Your task to perform on an android device: turn on showing notifications on the lock screen Image 0: 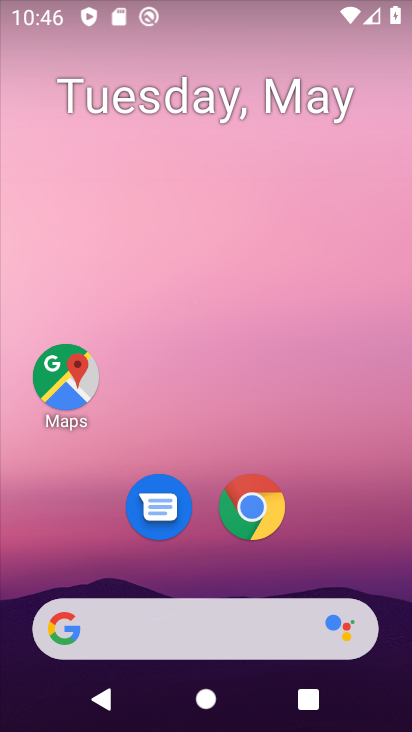
Step 0: drag from (280, 704) to (245, 371)
Your task to perform on an android device: turn on showing notifications on the lock screen Image 1: 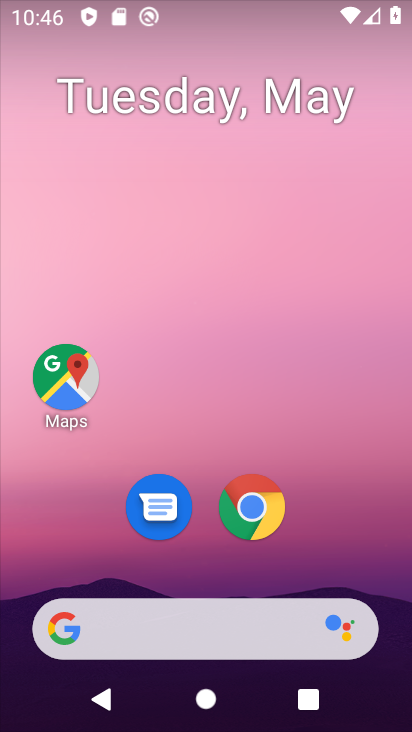
Step 1: drag from (230, 652) to (226, 138)
Your task to perform on an android device: turn on showing notifications on the lock screen Image 2: 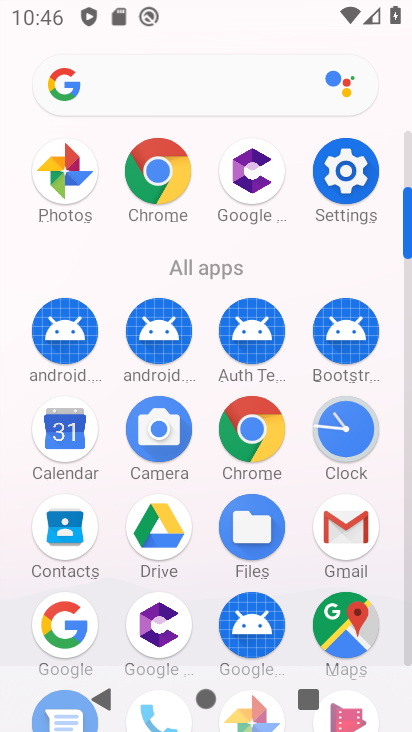
Step 2: click (337, 168)
Your task to perform on an android device: turn on showing notifications on the lock screen Image 3: 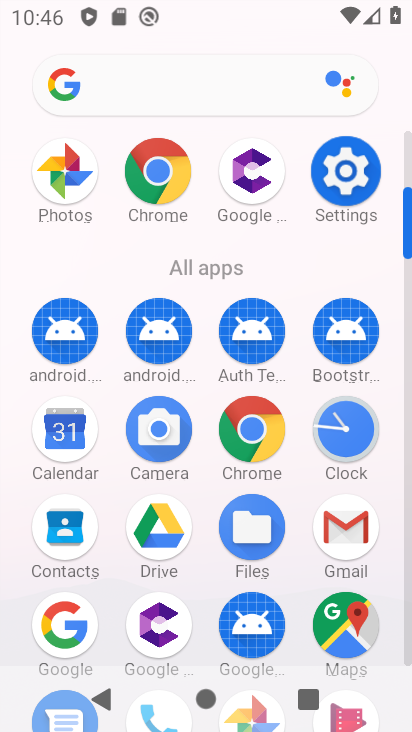
Step 3: click (337, 168)
Your task to perform on an android device: turn on showing notifications on the lock screen Image 4: 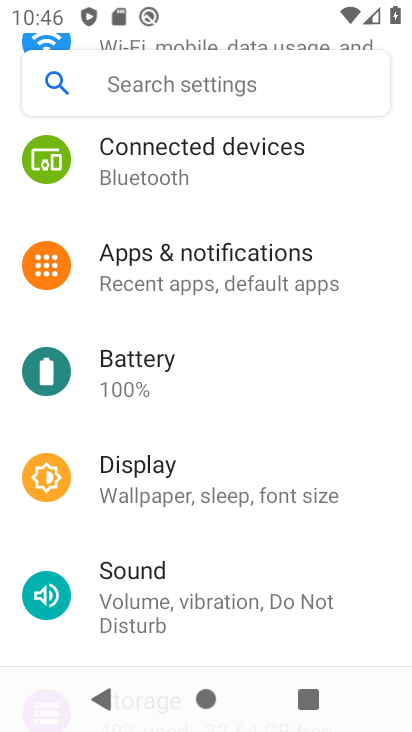
Step 4: click (337, 168)
Your task to perform on an android device: turn on showing notifications on the lock screen Image 5: 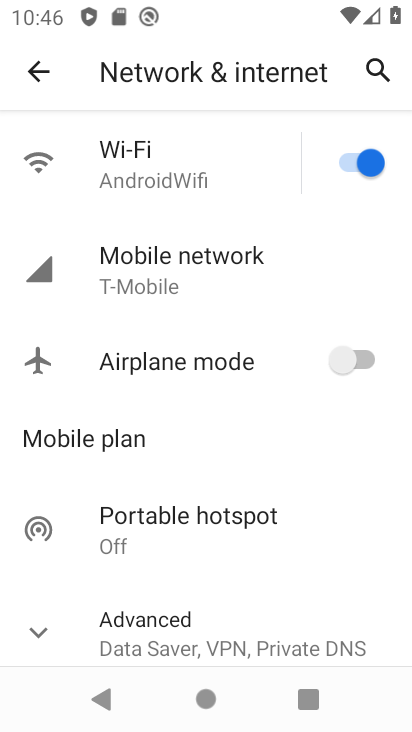
Step 5: drag from (215, 563) to (203, 246)
Your task to perform on an android device: turn on showing notifications on the lock screen Image 6: 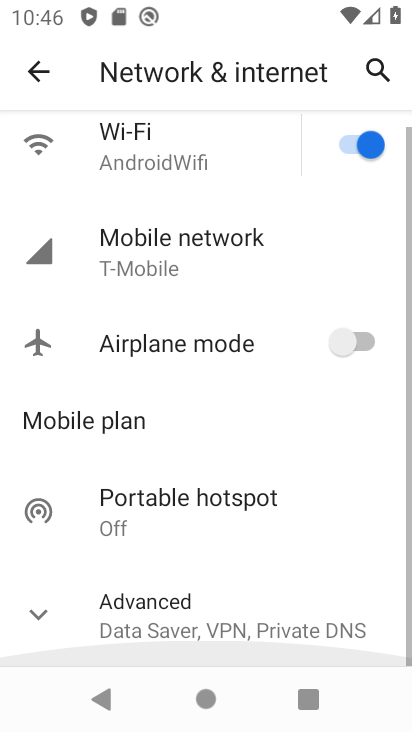
Step 6: drag from (264, 532) to (264, 147)
Your task to perform on an android device: turn on showing notifications on the lock screen Image 7: 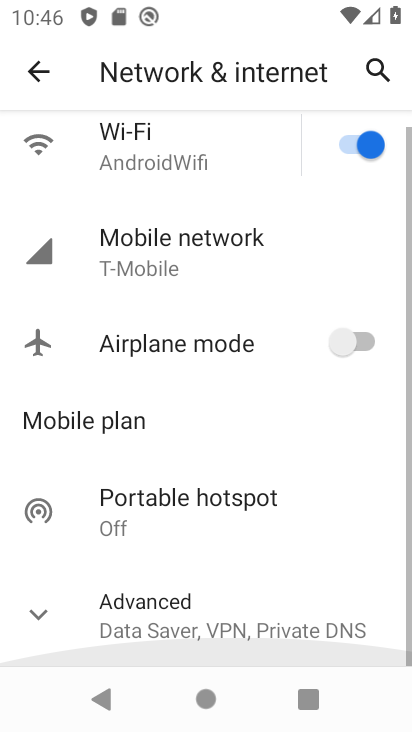
Step 7: drag from (248, 448) to (299, 165)
Your task to perform on an android device: turn on showing notifications on the lock screen Image 8: 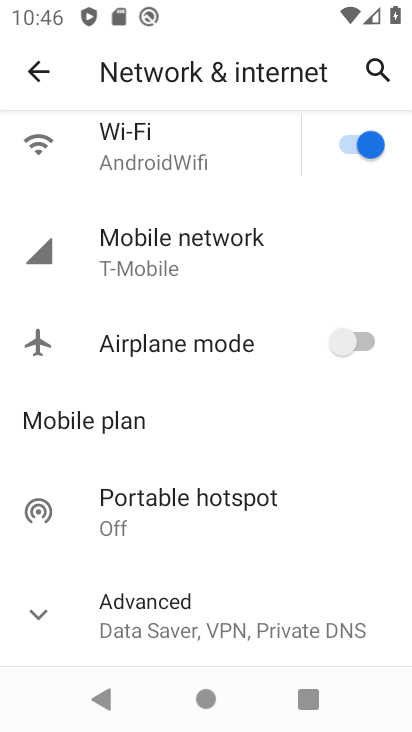
Step 8: click (30, 68)
Your task to perform on an android device: turn on showing notifications on the lock screen Image 9: 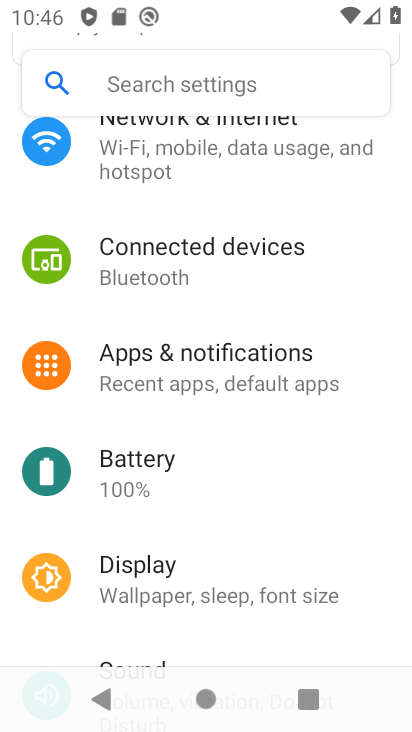
Step 9: click (212, 357)
Your task to perform on an android device: turn on showing notifications on the lock screen Image 10: 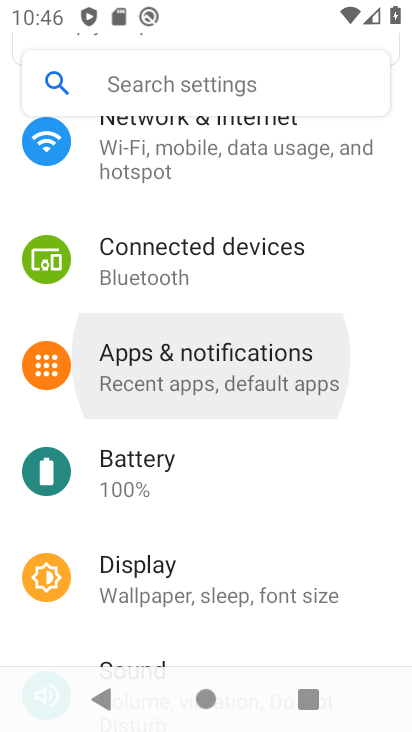
Step 10: click (215, 357)
Your task to perform on an android device: turn on showing notifications on the lock screen Image 11: 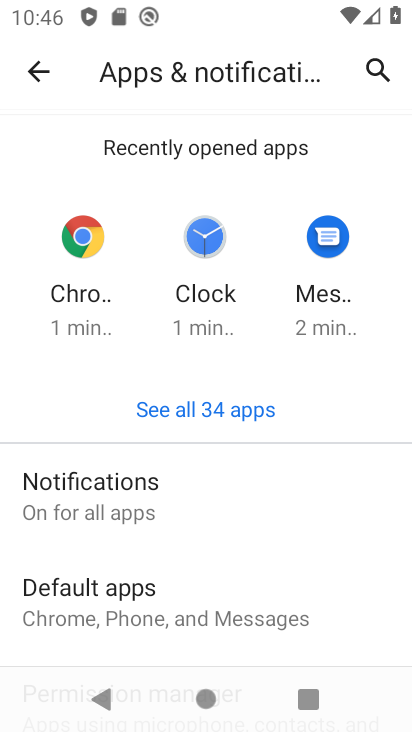
Step 11: click (94, 492)
Your task to perform on an android device: turn on showing notifications on the lock screen Image 12: 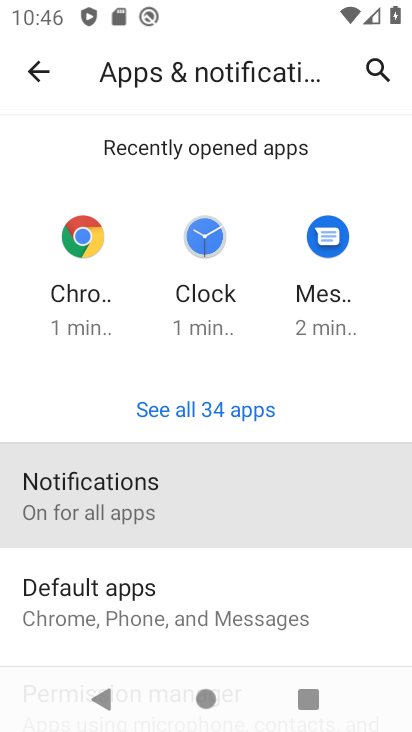
Step 12: click (95, 493)
Your task to perform on an android device: turn on showing notifications on the lock screen Image 13: 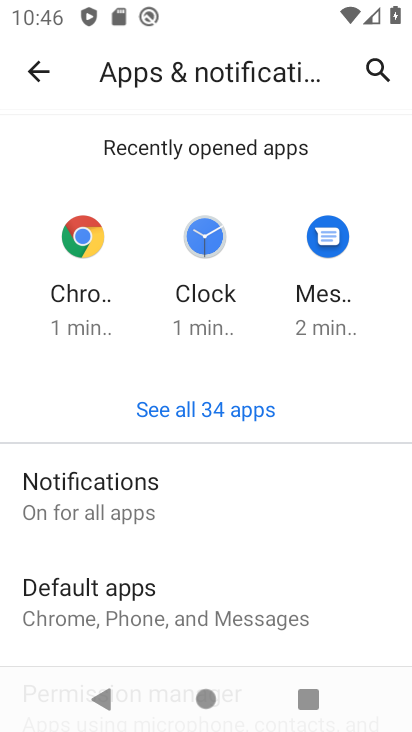
Step 13: click (95, 493)
Your task to perform on an android device: turn on showing notifications on the lock screen Image 14: 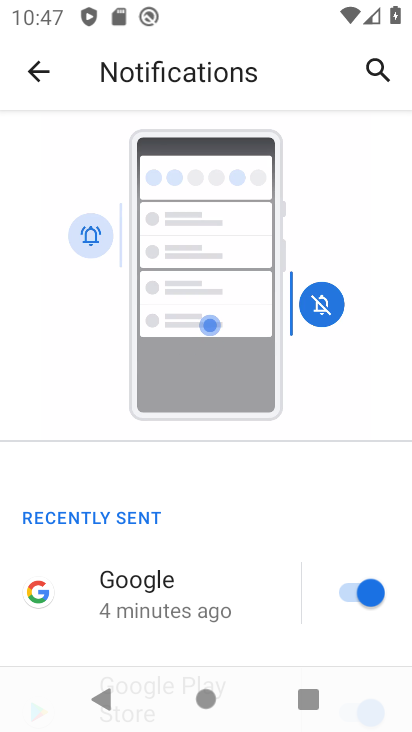
Step 14: drag from (223, 534) to (213, 167)
Your task to perform on an android device: turn on showing notifications on the lock screen Image 15: 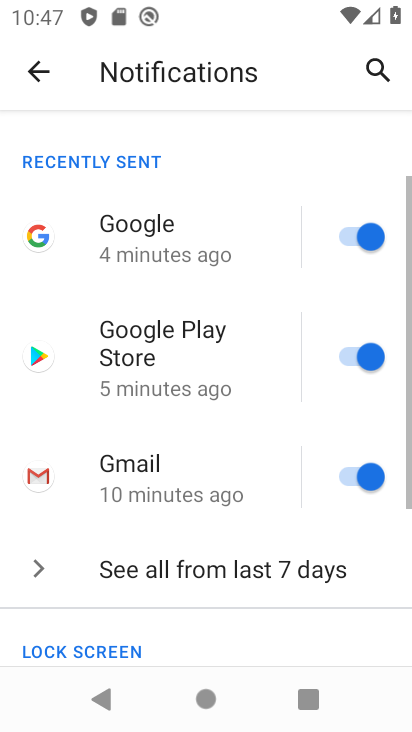
Step 15: drag from (228, 510) to (237, 185)
Your task to perform on an android device: turn on showing notifications on the lock screen Image 16: 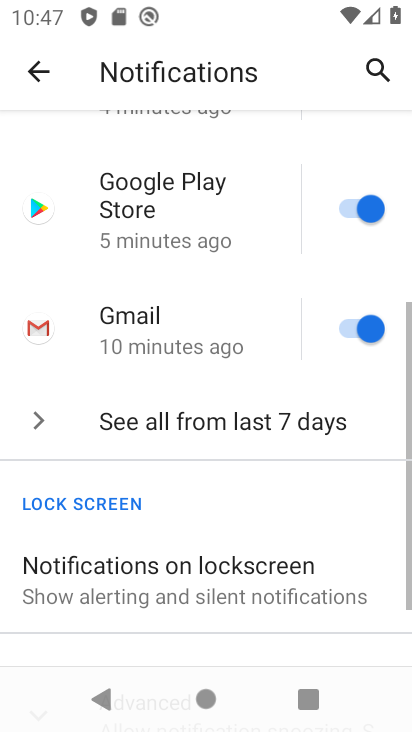
Step 16: drag from (187, 552) to (180, 184)
Your task to perform on an android device: turn on showing notifications on the lock screen Image 17: 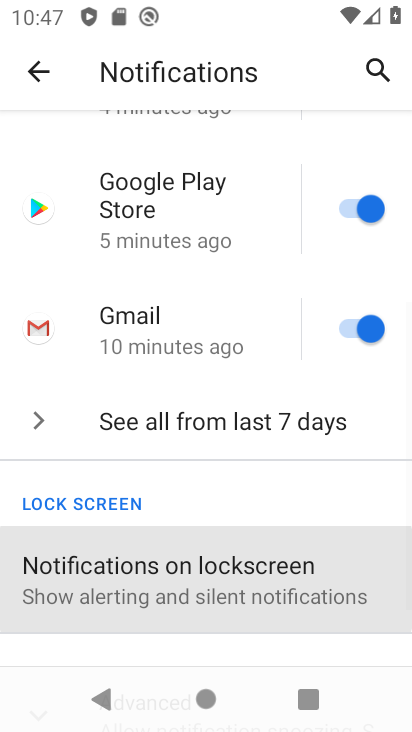
Step 17: drag from (197, 495) to (216, 186)
Your task to perform on an android device: turn on showing notifications on the lock screen Image 18: 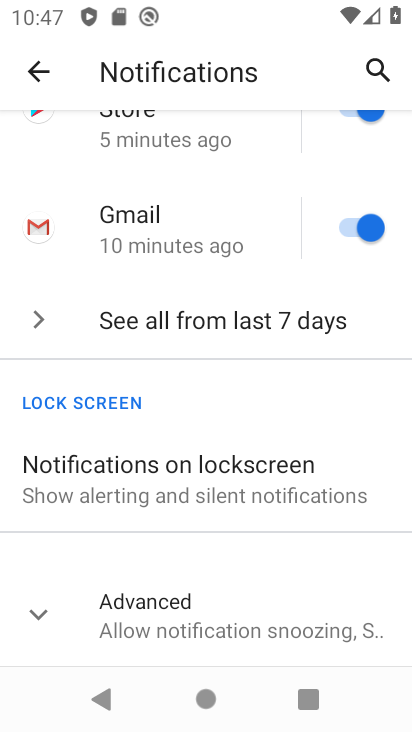
Step 18: click (114, 464)
Your task to perform on an android device: turn on showing notifications on the lock screen Image 19: 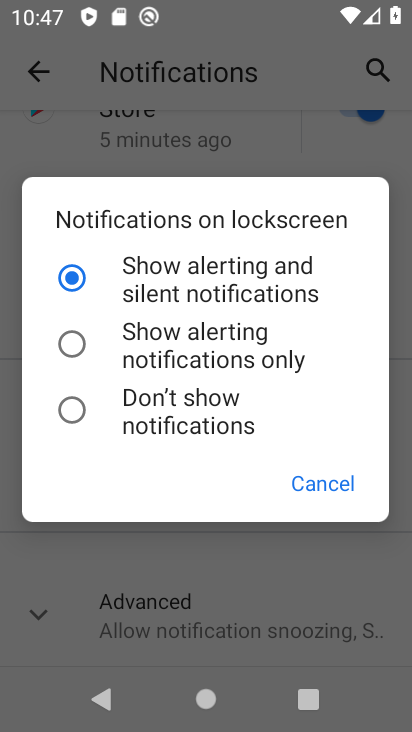
Step 19: click (324, 485)
Your task to perform on an android device: turn on showing notifications on the lock screen Image 20: 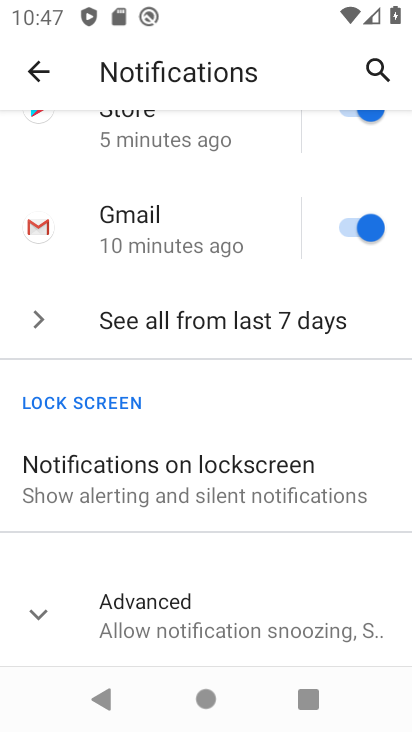
Step 20: task complete